Your task to perform on an android device: Open notification settings Image 0: 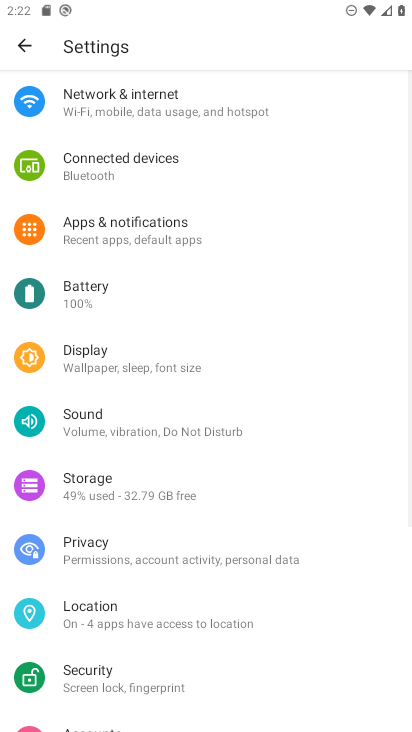
Step 0: press home button
Your task to perform on an android device: Open notification settings Image 1: 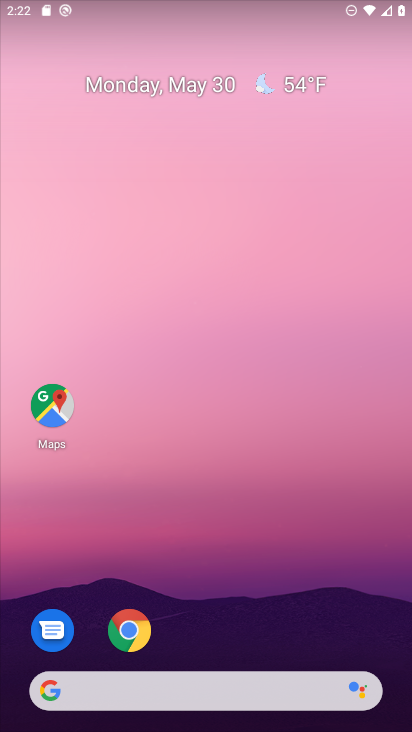
Step 1: drag from (170, 687) to (370, 77)
Your task to perform on an android device: Open notification settings Image 2: 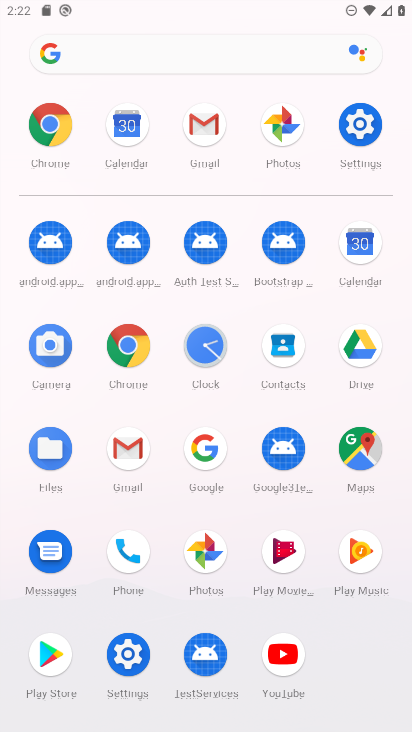
Step 2: click (367, 130)
Your task to perform on an android device: Open notification settings Image 3: 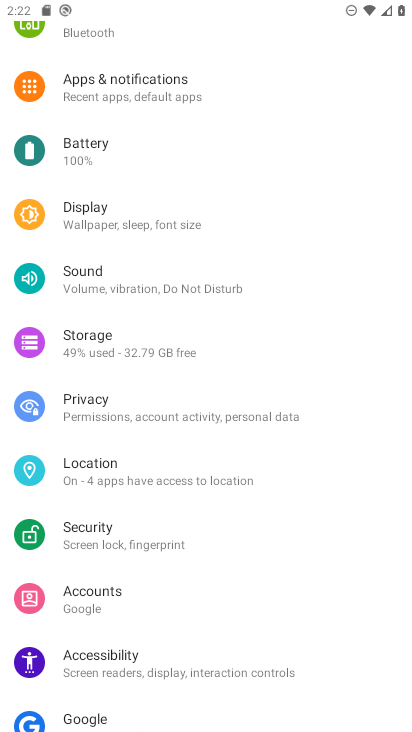
Step 3: click (178, 80)
Your task to perform on an android device: Open notification settings Image 4: 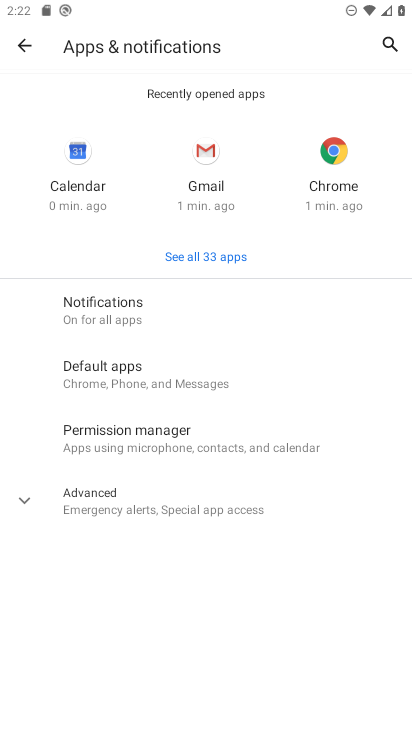
Step 4: click (141, 312)
Your task to perform on an android device: Open notification settings Image 5: 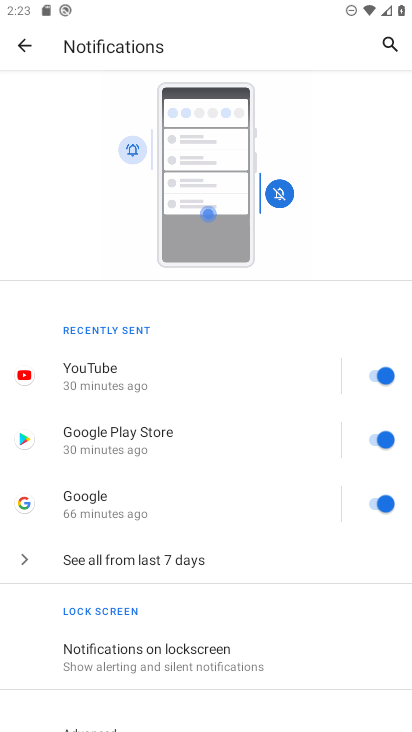
Step 5: task complete